Your task to perform on an android device: uninstall "Google Duo" Image 0: 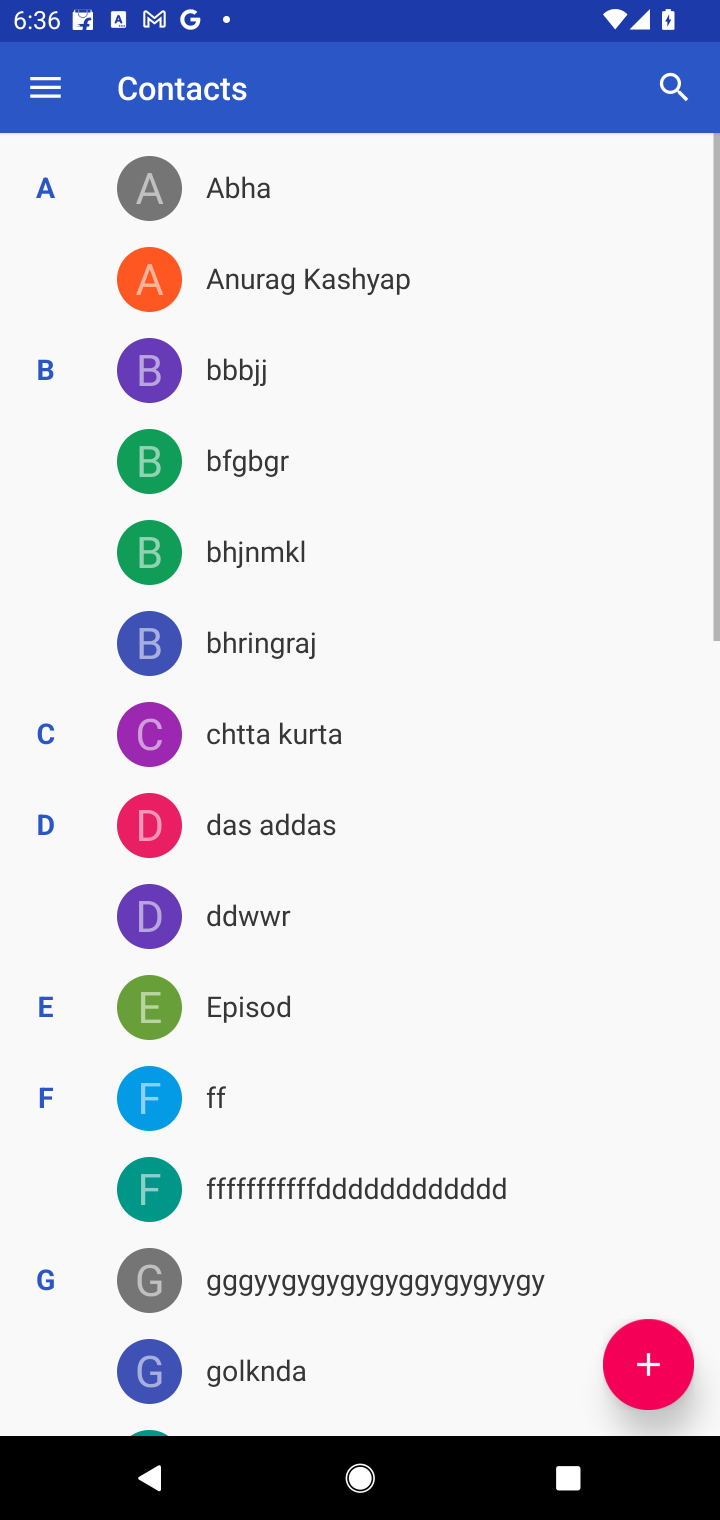
Step 0: press home button
Your task to perform on an android device: uninstall "Google Duo" Image 1: 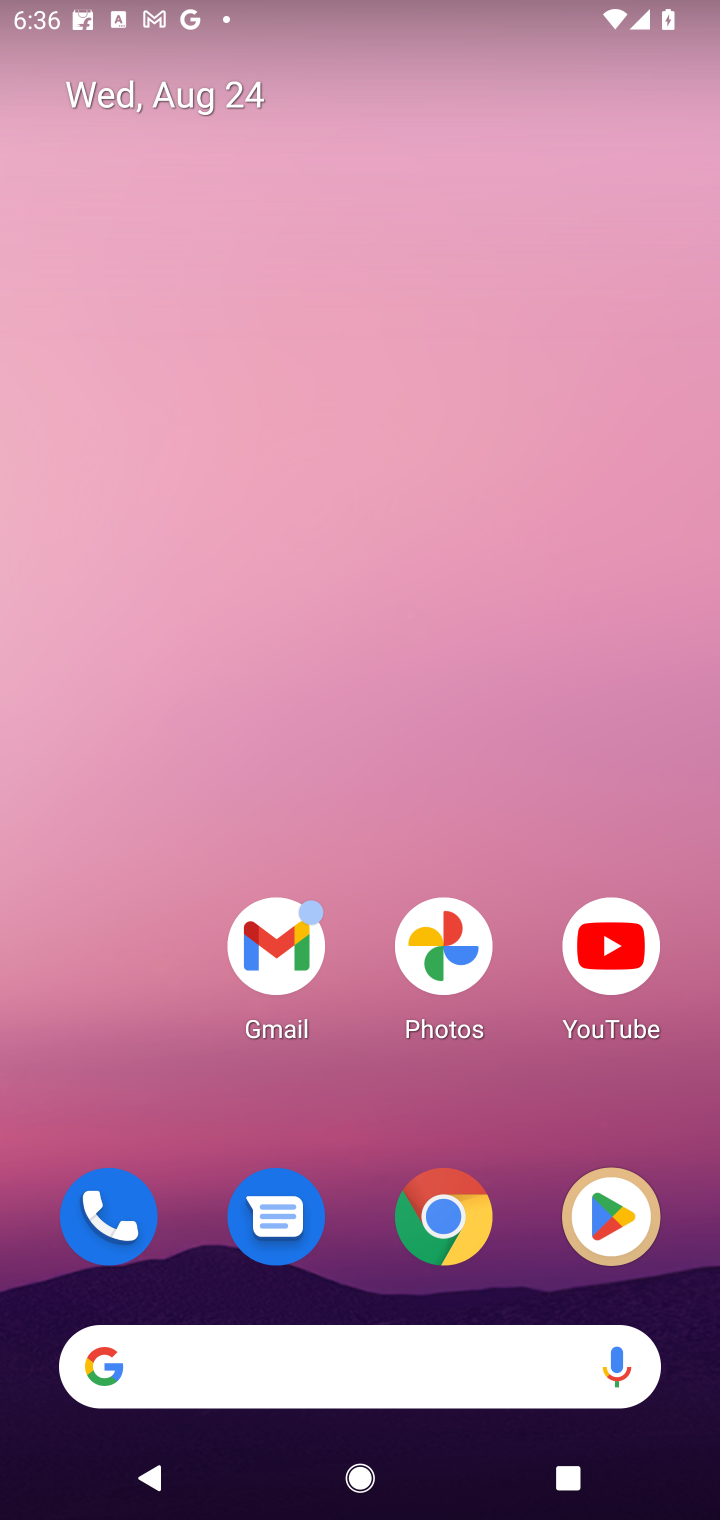
Step 1: click (634, 1215)
Your task to perform on an android device: uninstall "Google Duo" Image 2: 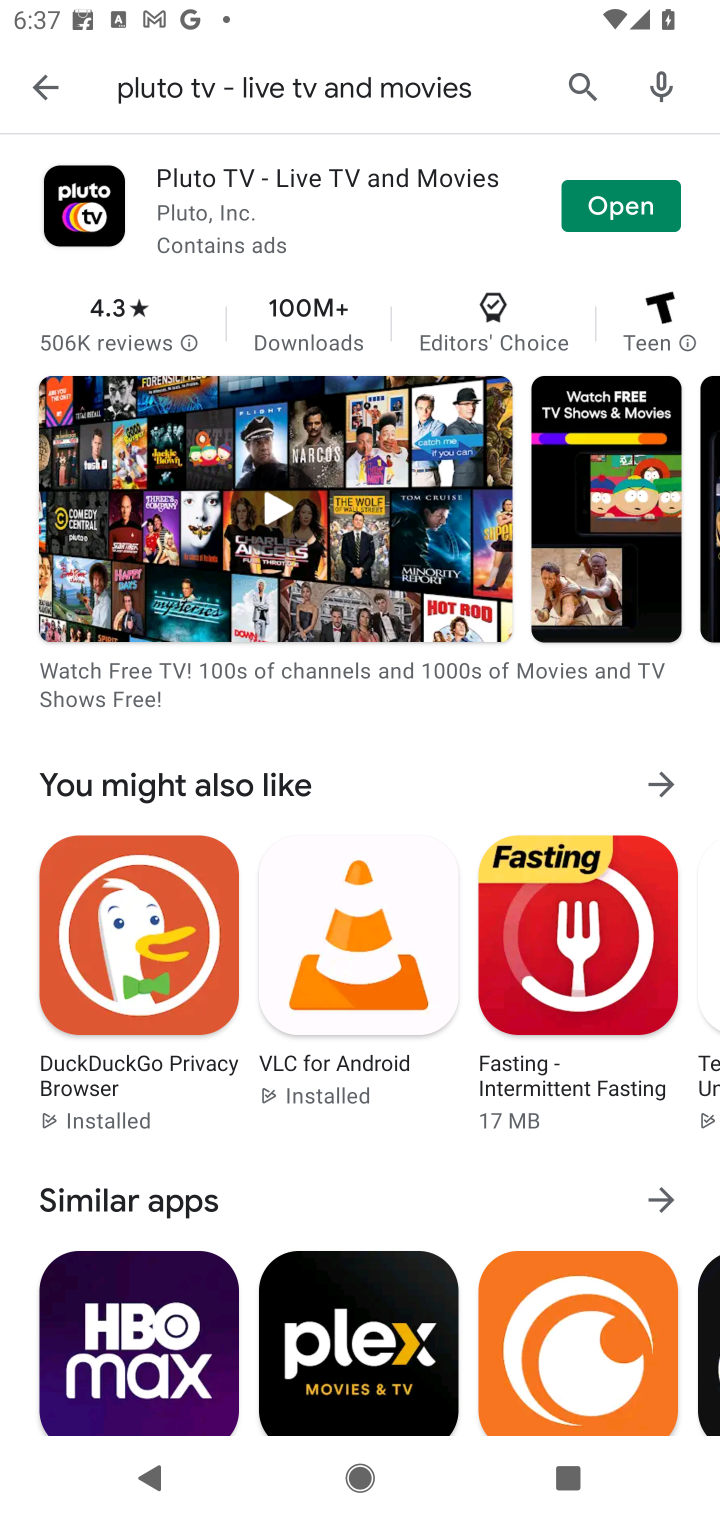
Step 2: click (630, 85)
Your task to perform on an android device: uninstall "Google Duo" Image 3: 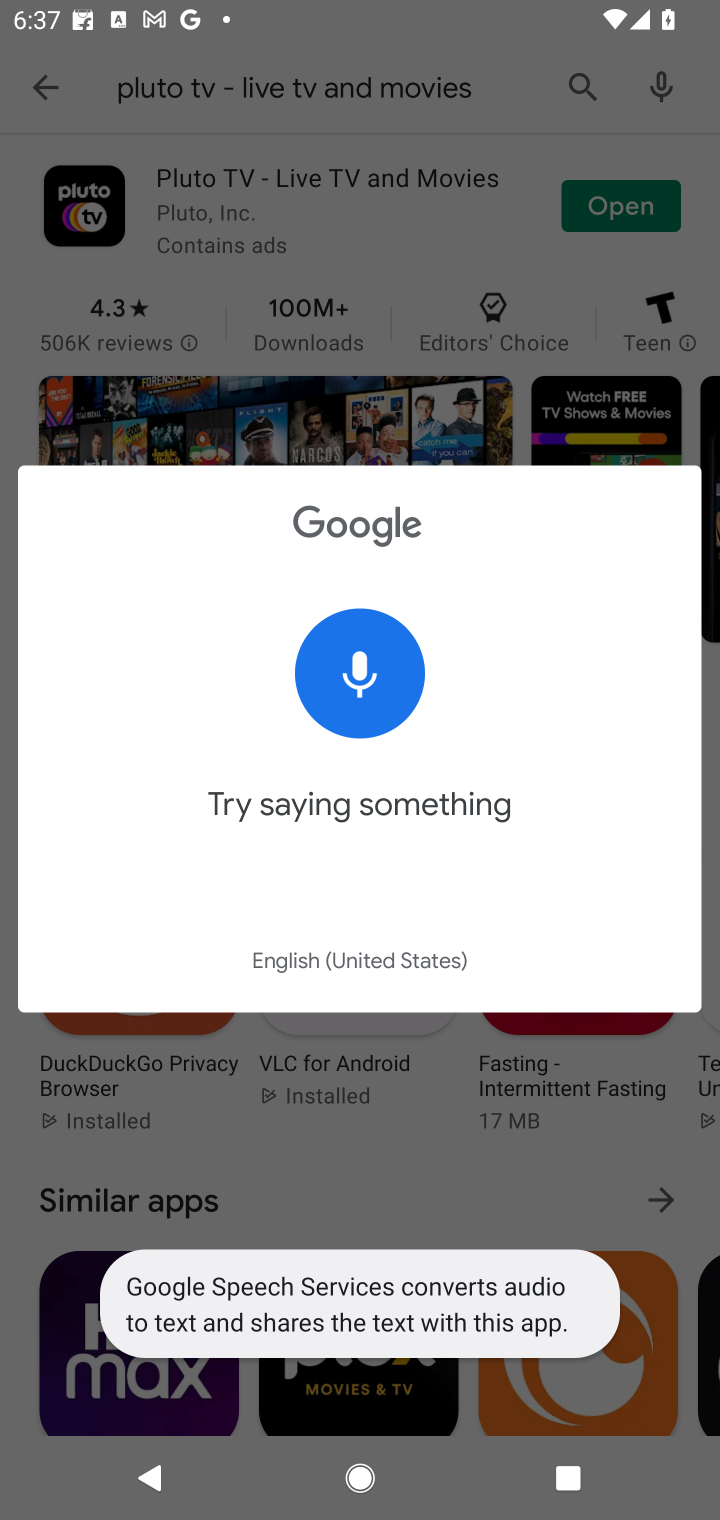
Step 3: click (559, 89)
Your task to perform on an android device: uninstall "Google Duo" Image 4: 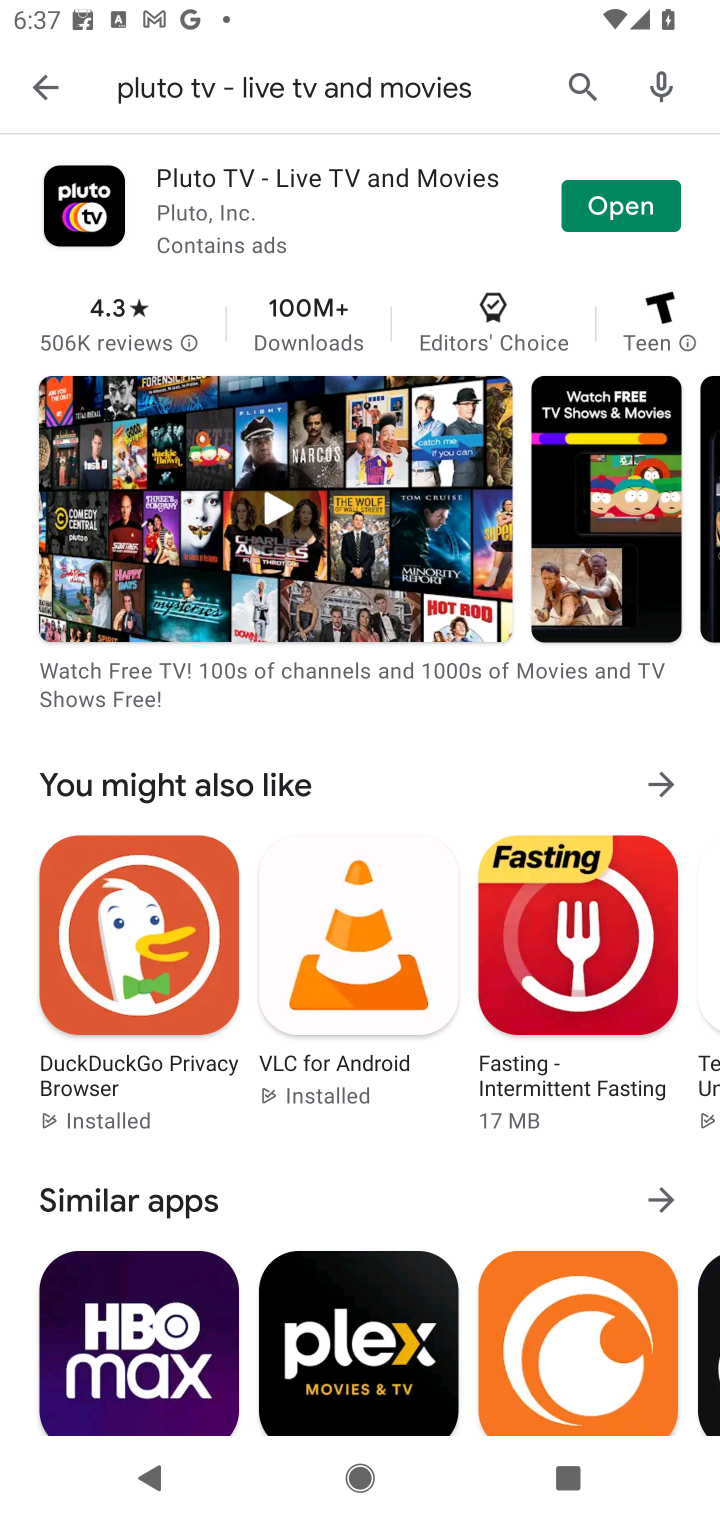
Step 4: click (571, 91)
Your task to perform on an android device: uninstall "Google Duo" Image 5: 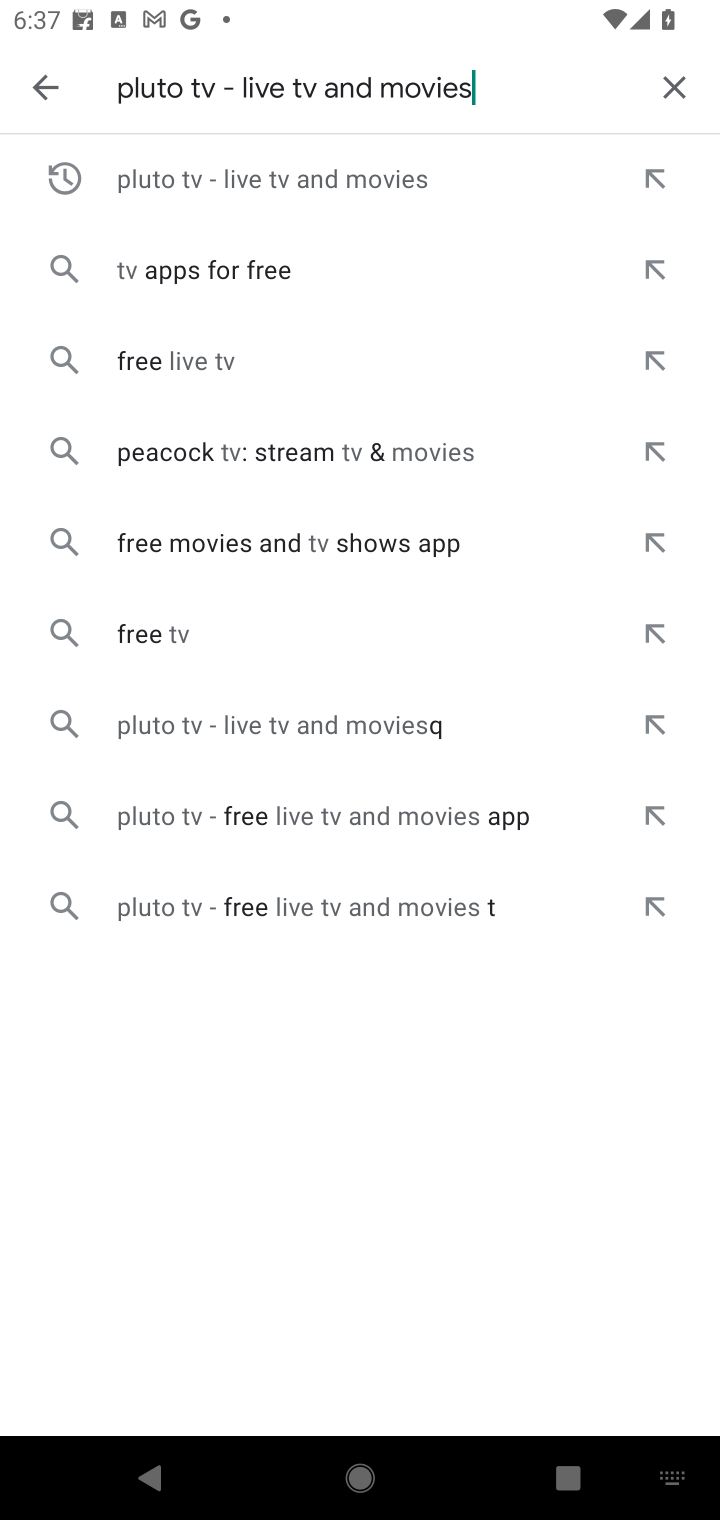
Step 5: click (675, 66)
Your task to perform on an android device: uninstall "Google Duo" Image 6: 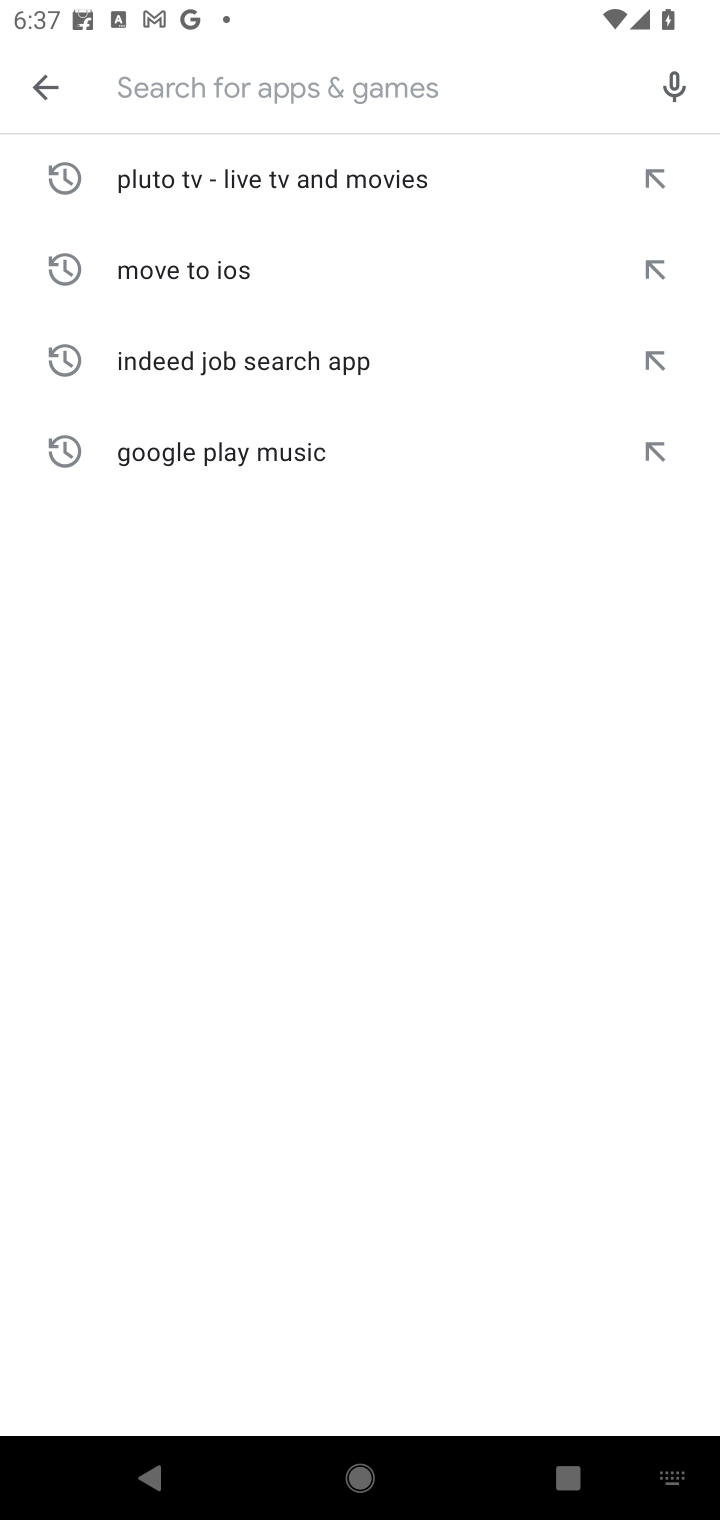
Step 6: type "Google Duo"
Your task to perform on an android device: uninstall "Google Duo" Image 7: 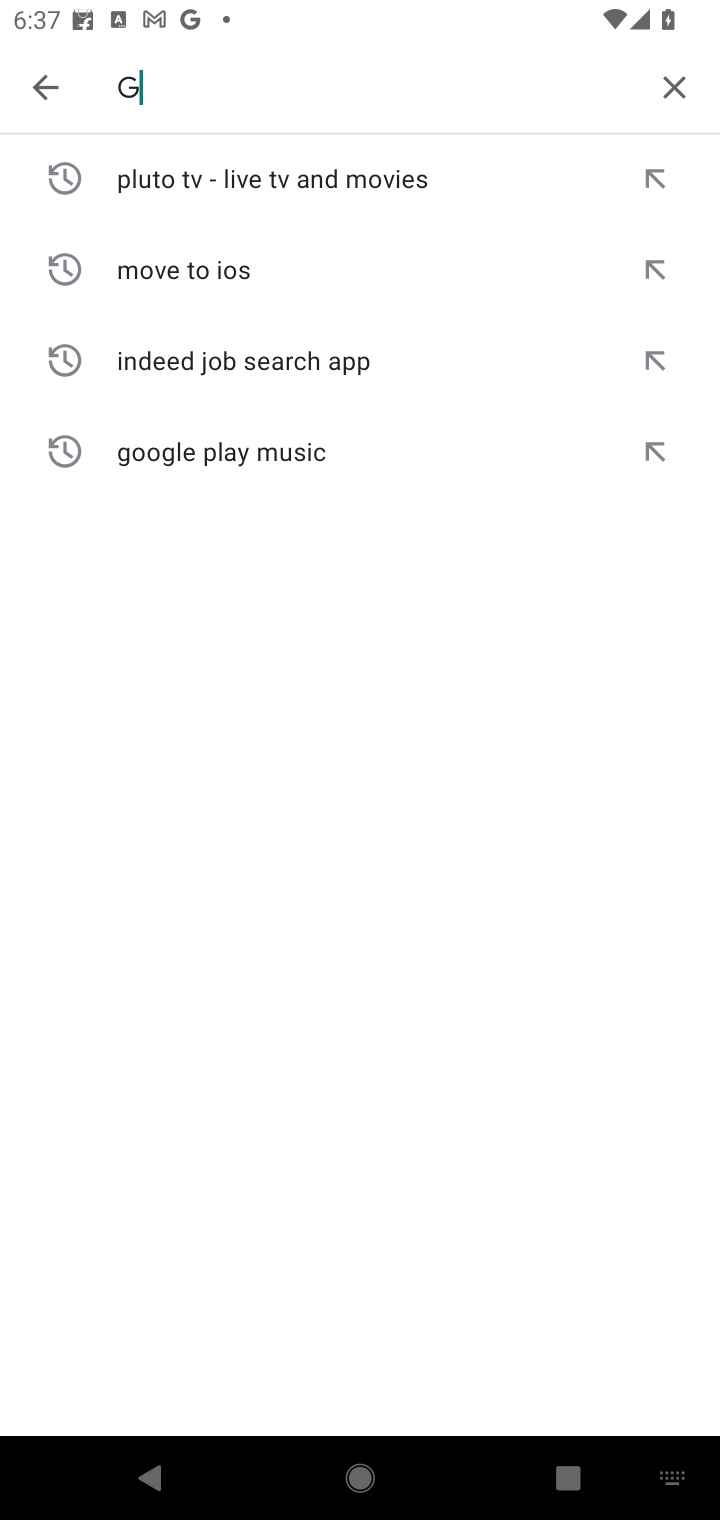
Step 7: type ""
Your task to perform on an android device: uninstall "Google Duo" Image 8: 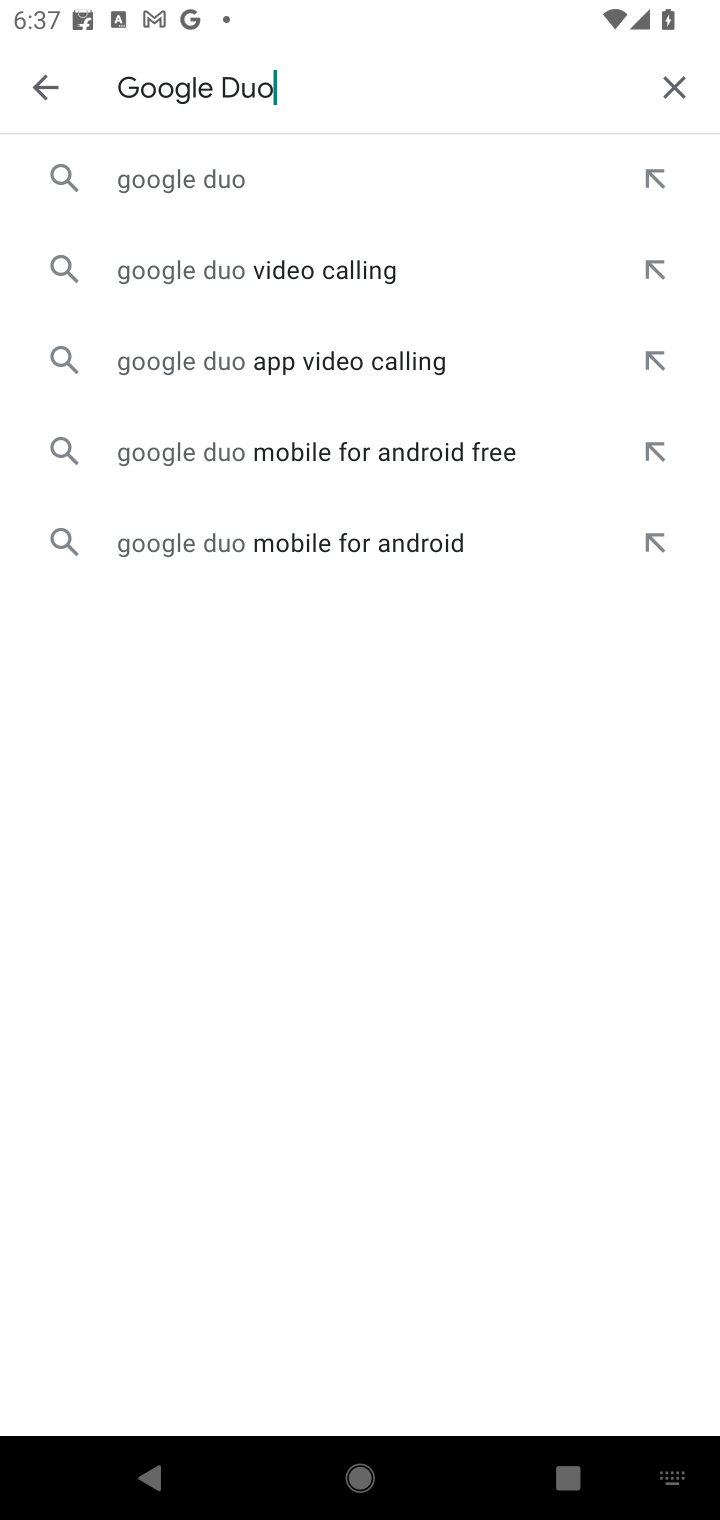
Step 8: click (257, 186)
Your task to perform on an android device: uninstall "Google Duo" Image 9: 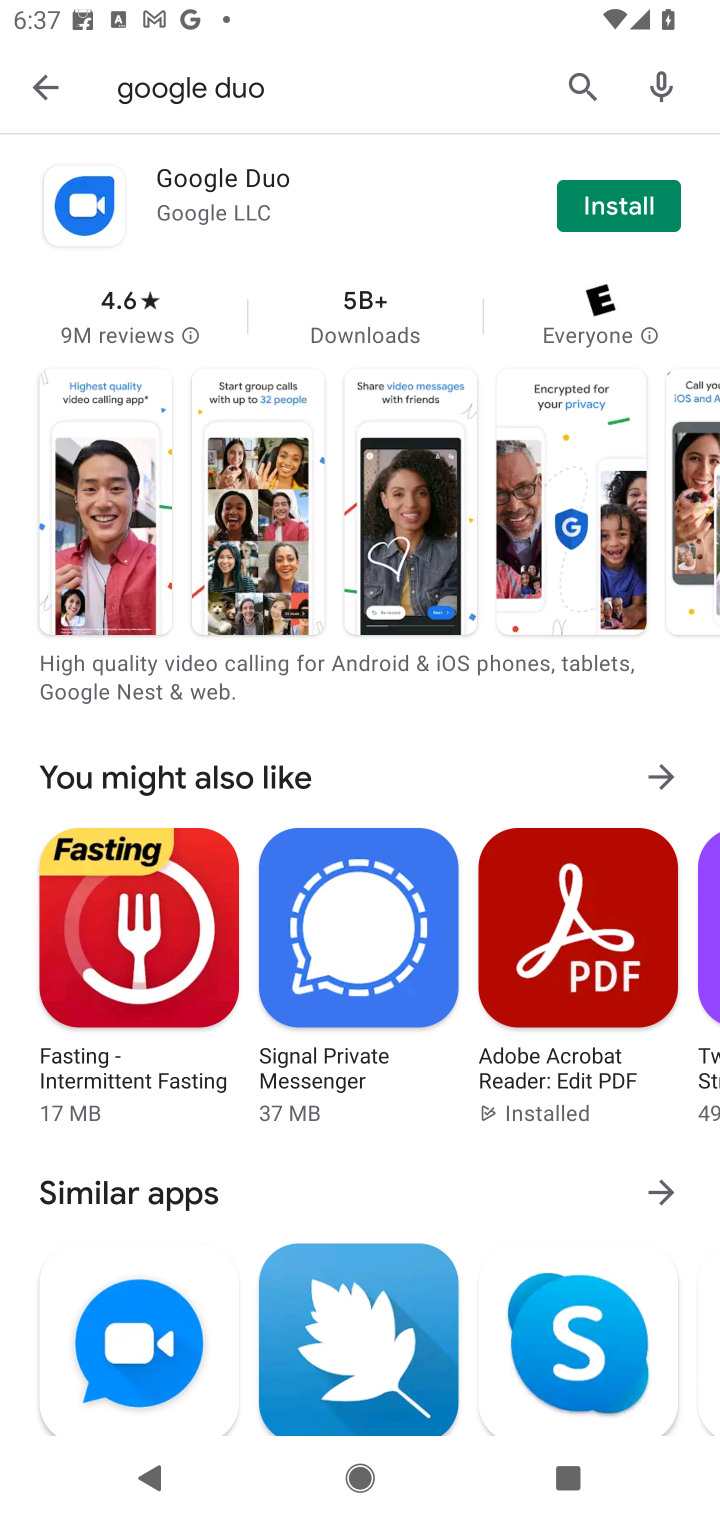
Step 9: click (332, 212)
Your task to perform on an android device: uninstall "Google Duo" Image 10: 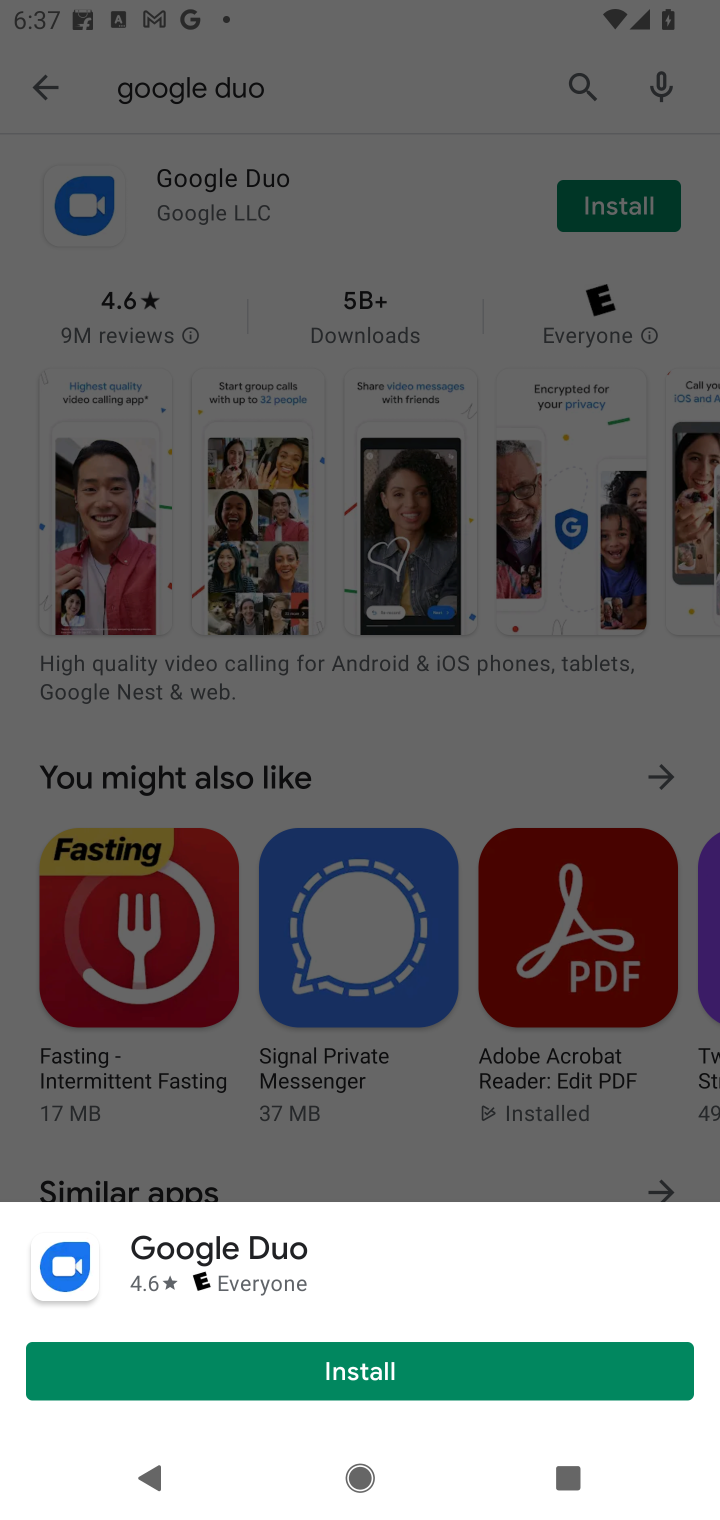
Step 10: task complete